Your task to perform on an android device: turn off data saver in the chrome app Image 0: 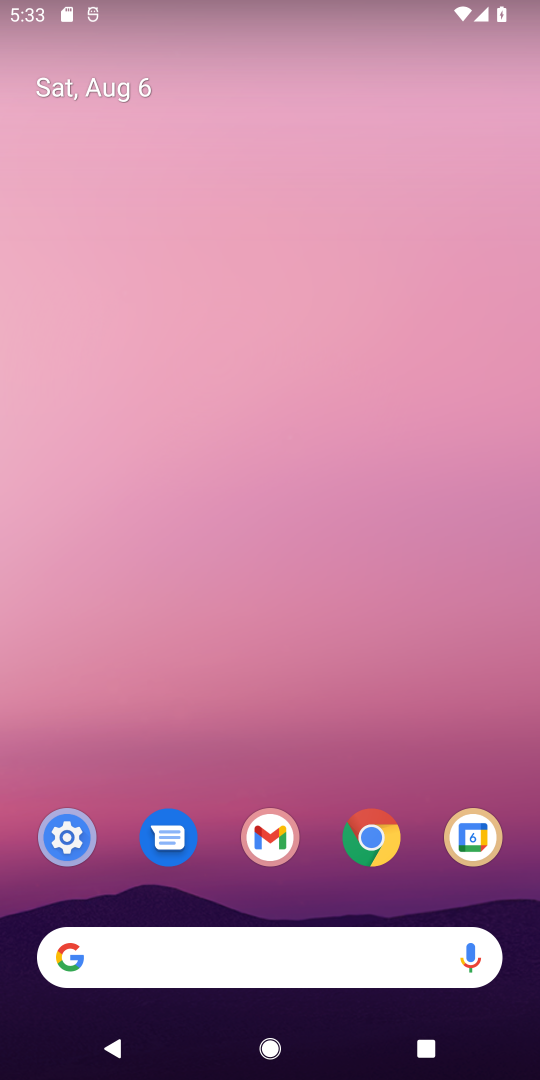
Step 0: click (382, 852)
Your task to perform on an android device: turn off data saver in the chrome app Image 1: 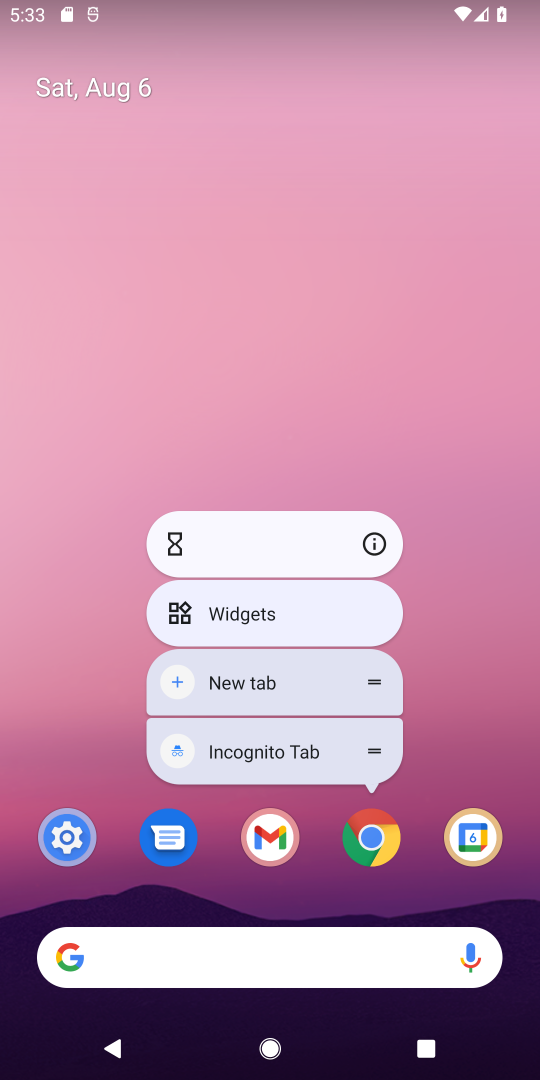
Step 1: click (260, 692)
Your task to perform on an android device: turn off data saver in the chrome app Image 2: 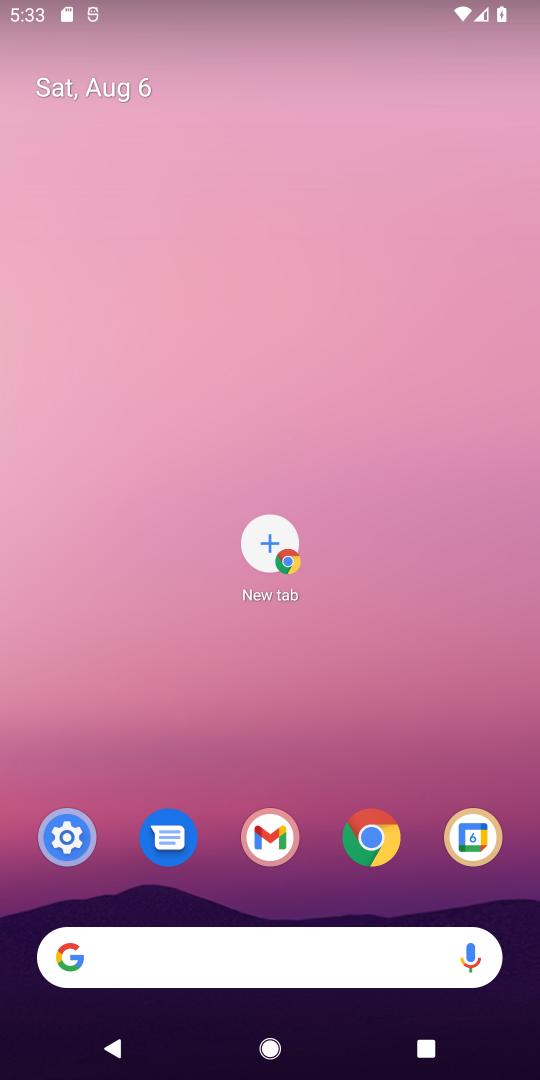
Step 2: drag from (373, 684) to (371, 2)
Your task to perform on an android device: turn off data saver in the chrome app Image 3: 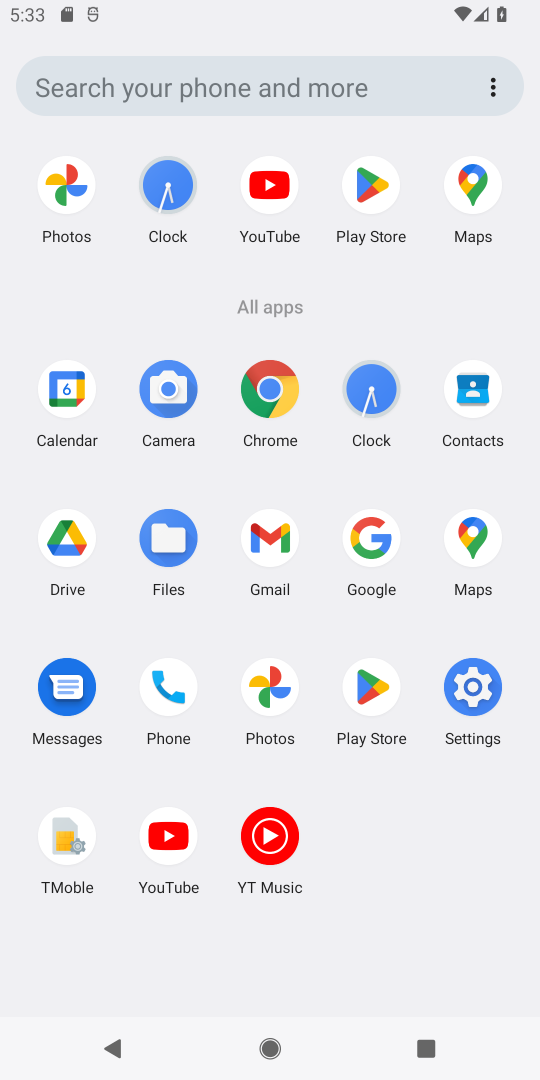
Step 3: click (275, 394)
Your task to perform on an android device: turn off data saver in the chrome app Image 4: 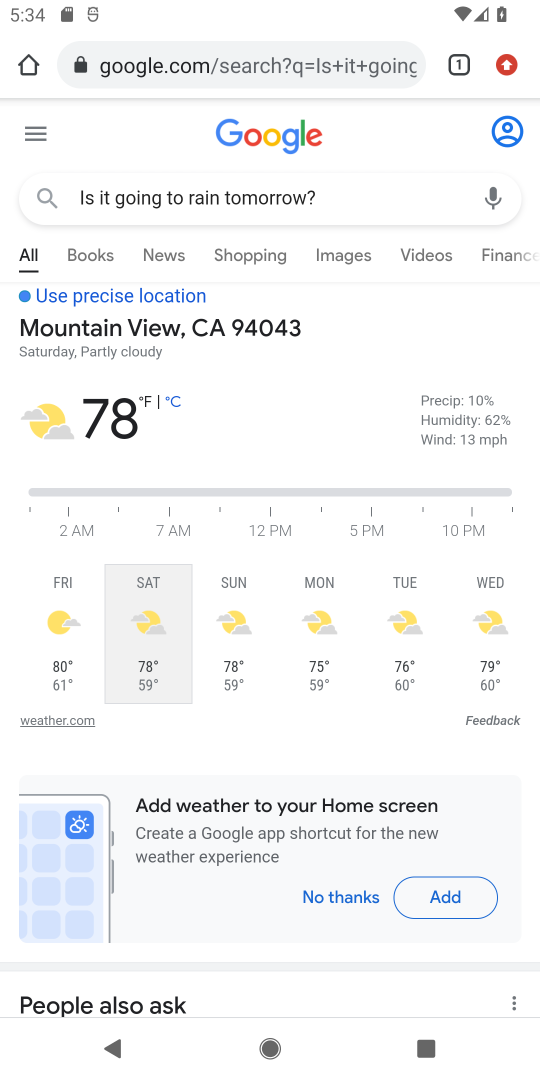
Step 4: click (515, 71)
Your task to perform on an android device: turn off data saver in the chrome app Image 5: 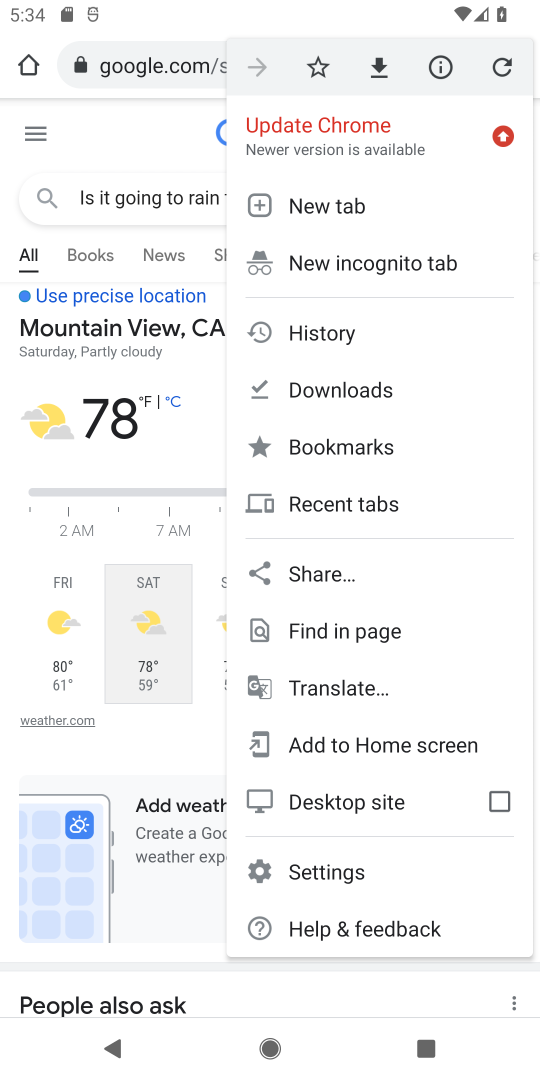
Step 5: click (356, 882)
Your task to perform on an android device: turn off data saver in the chrome app Image 6: 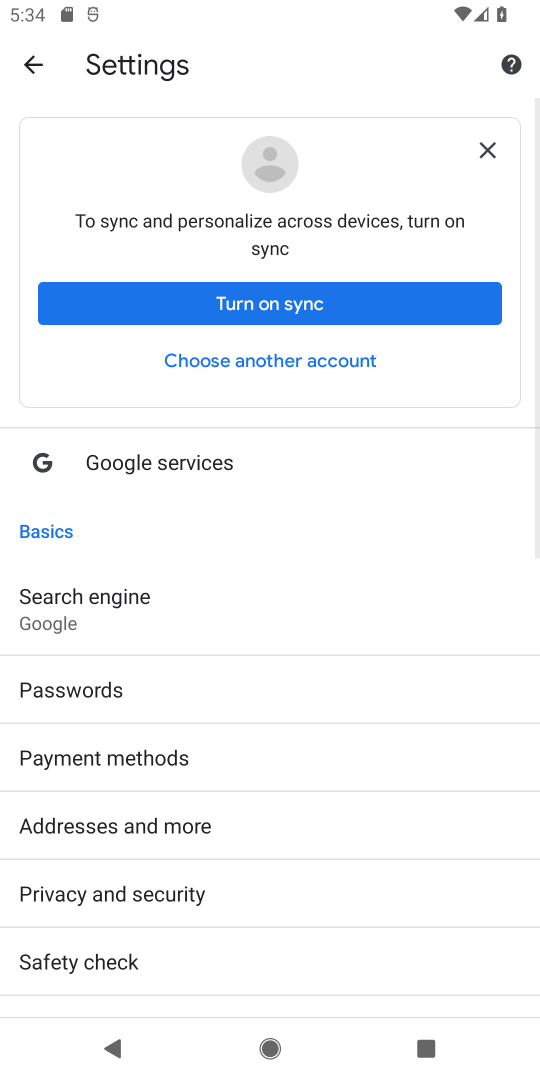
Step 6: task complete